Your task to perform on an android device: What's the US dollar exchange rate against the Australian Dollar? Image 0: 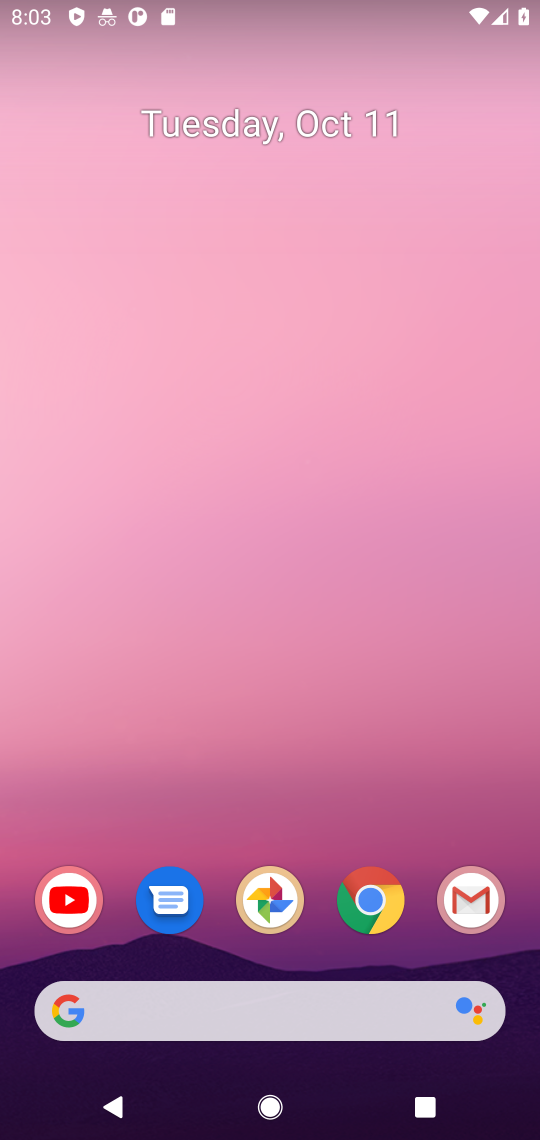
Step 0: press home button
Your task to perform on an android device: What's the US dollar exchange rate against the Australian Dollar? Image 1: 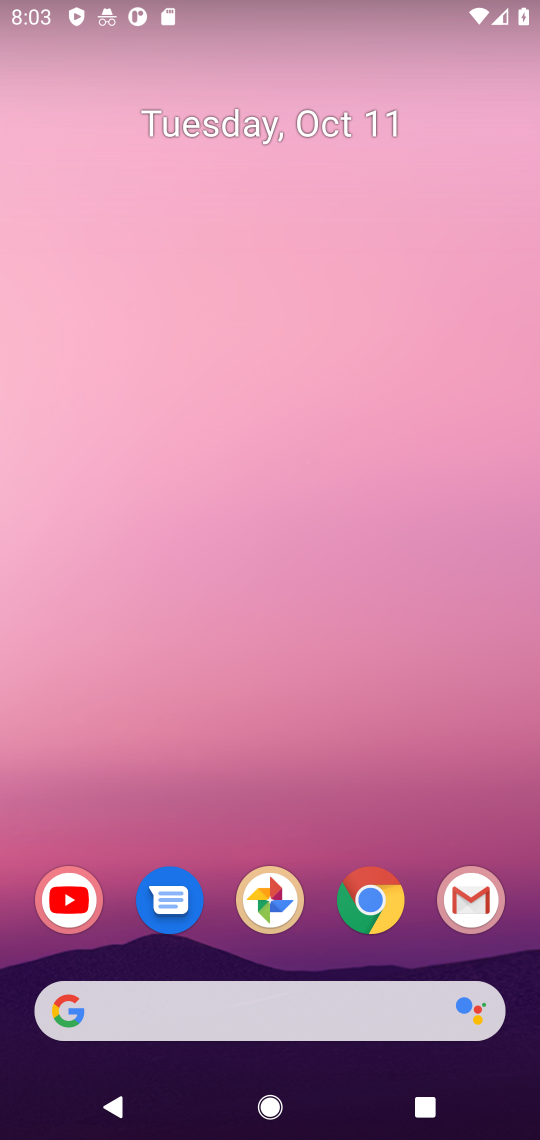
Step 1: click (374, 878)
Your task to perform on an android device: What's the US dollar exchange rate against the Australian Dollar? Image 2: 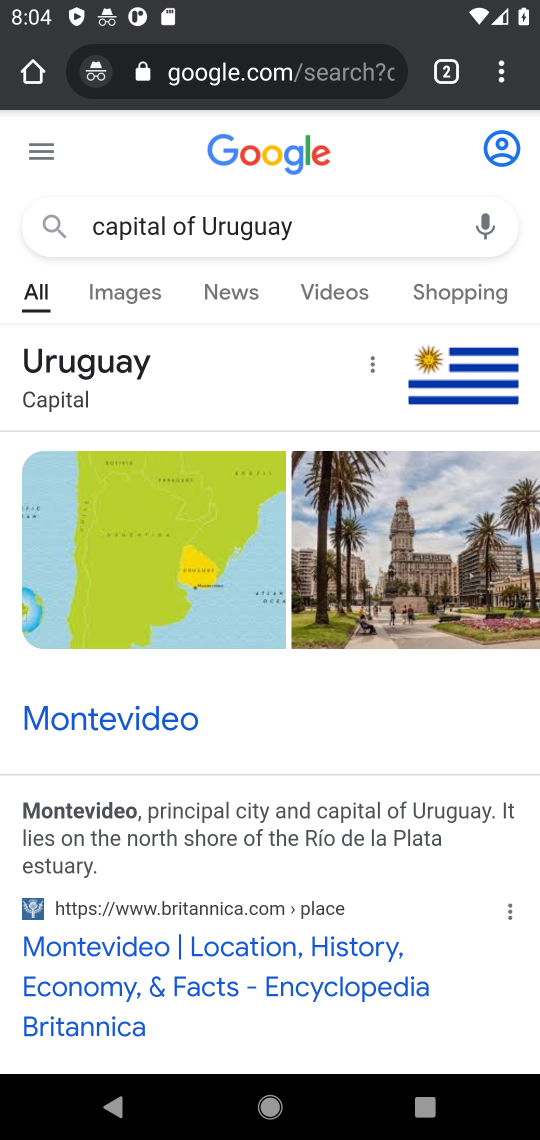
Step 2: click (300, 87)
Your task to perform on an android device: What's the US dollar exchange rate against the Australian Dollar? Image 3: 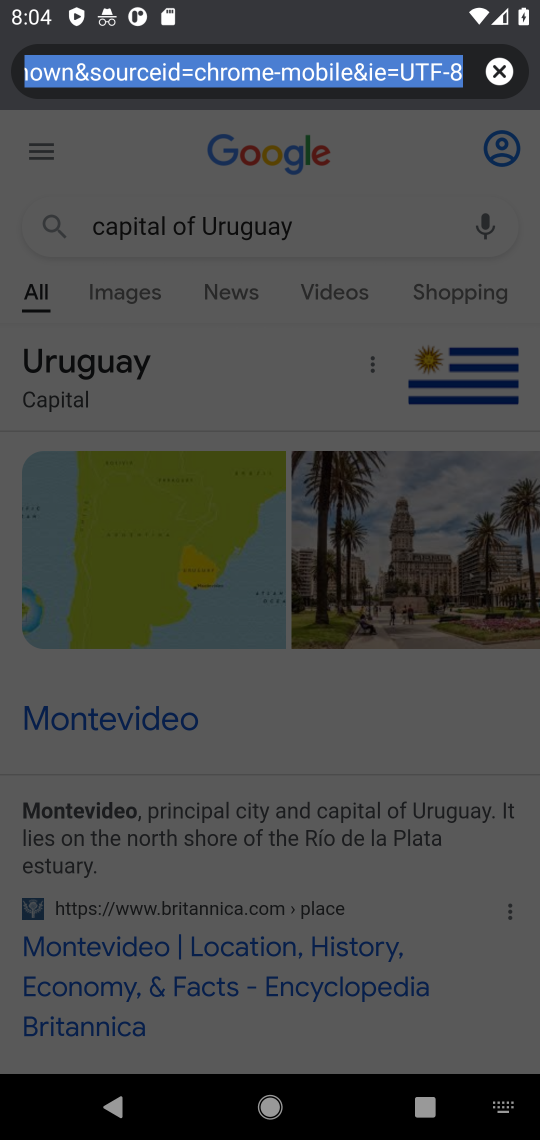
Step 3: type "US dollar exchange rate against the Australian Dollar"
Your task to perform on an android device: What's the US dollar exchange rate against the Australian Dollar? Image 4: 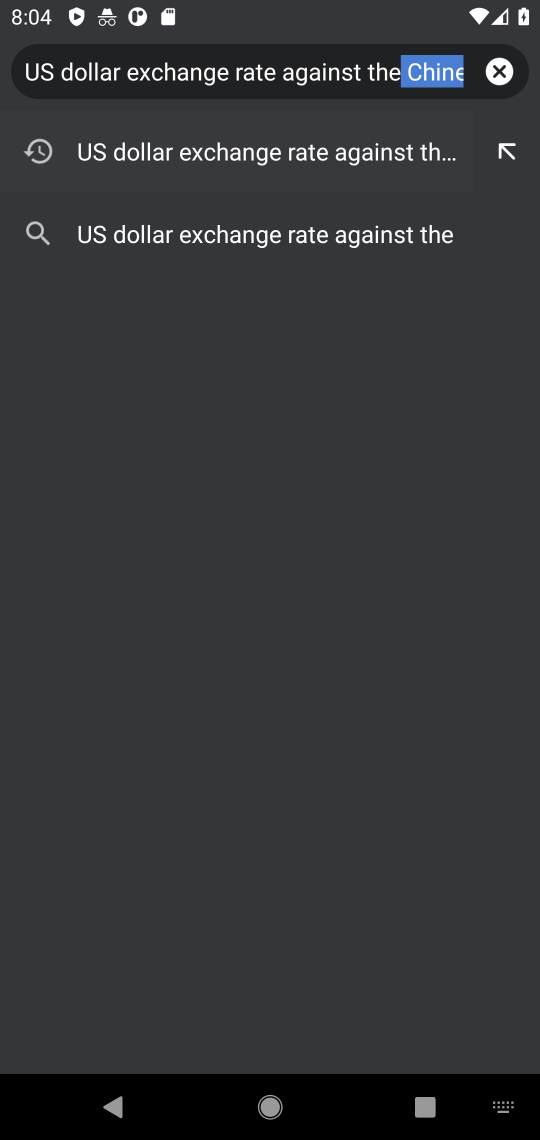
Step 4: type " australian dollar"
Your task to perform on an android device: What's the US dollar exchange rate against the Australian Dollar? Image 5: 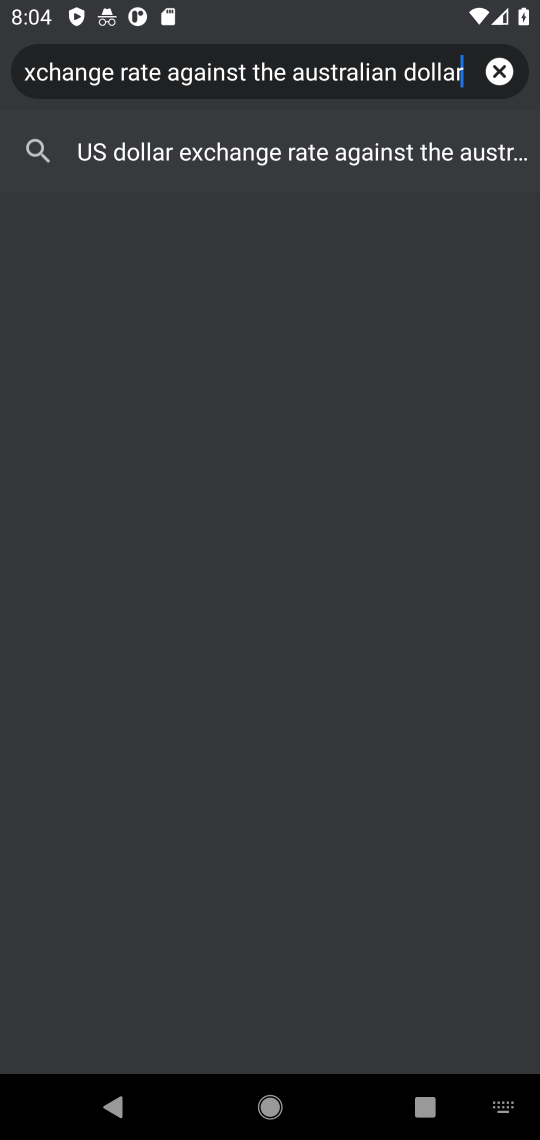
Step 5: click (415, 140)
Your task to perform on an android device: What's the US dollar exchange rate against the Australian Dollar? Image 6: 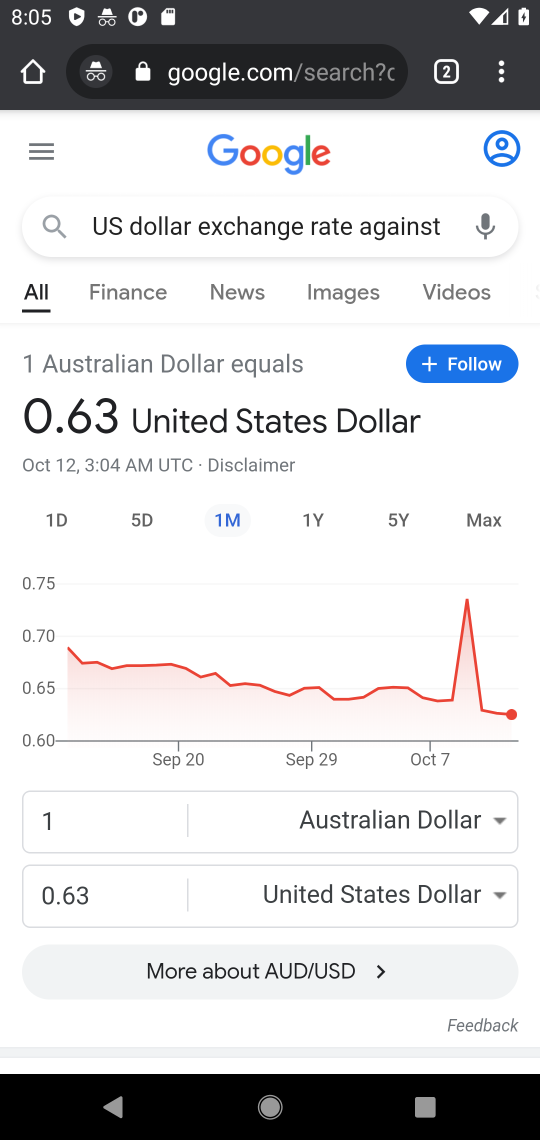
Step 6: task complete